Your task to perform on an android device: see tabs open on other devices in the chrome app Image 0: 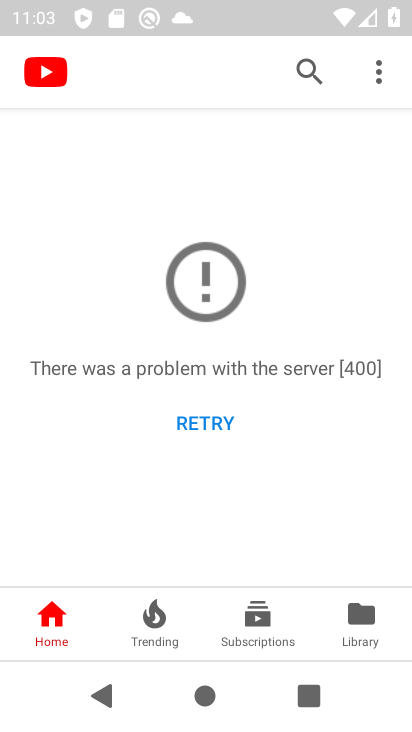
Step 0: press back button
Your task to perform on an android device: see tabs open on other devices in the chrome app Image 1: 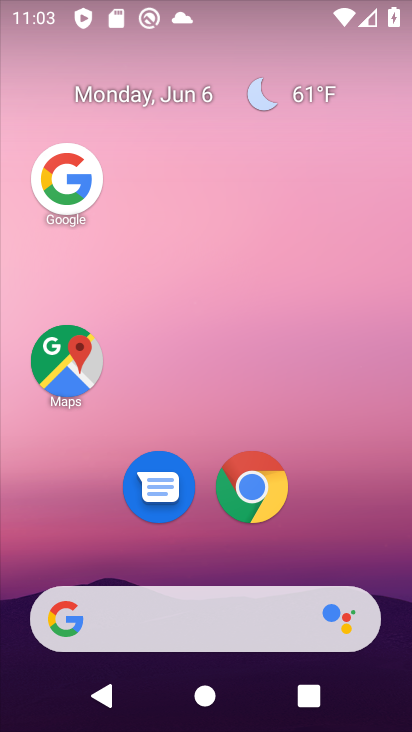
Step 1: click (259, 485)
Your task to perform on an android device: see tabs open on other devices in the chrome app Image 2: 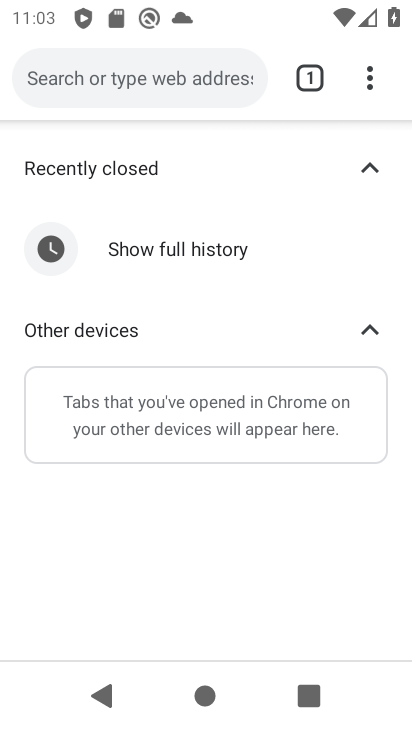
Step 2: click (379, 63)
Your task to perform on an android device: see tabs open on other devices in the chrome app Image 3: 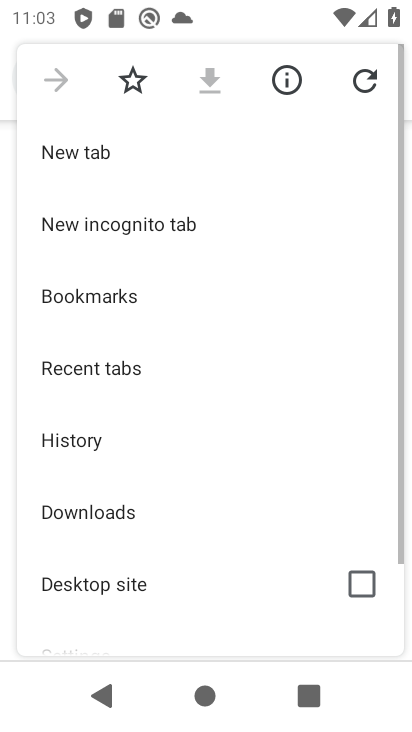
Step 3: click (197, 369)
Your task to perform on an android device: see tabs open on other devices in the chrome app Image 4: 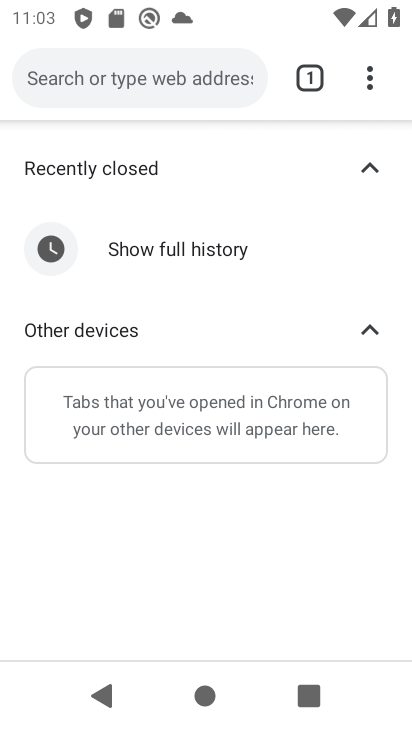
Step 4: click (135, 247)
Your task to perform on an android device: see tabs open on other devices in the chrome app Image 5: 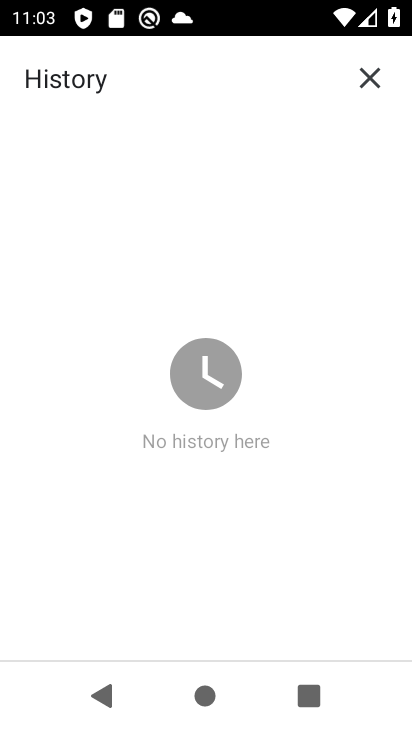
Step 5: task complete